Your task to perform on an android device: Open Google Image 0: 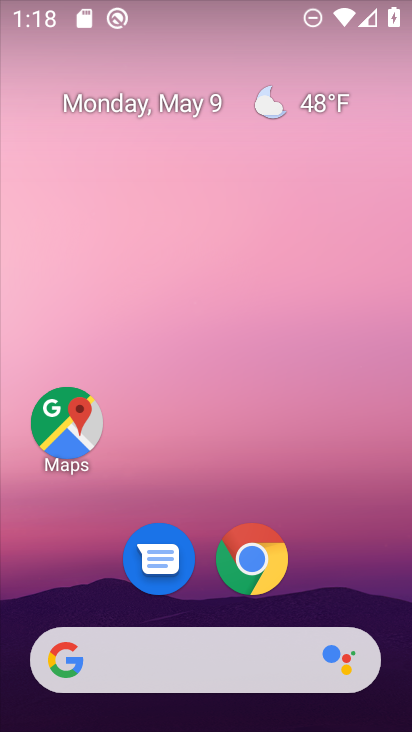
Step 0: drag from (187, 613) to (209, 248)
Your task to perform on an android device: Open Google Image 1: 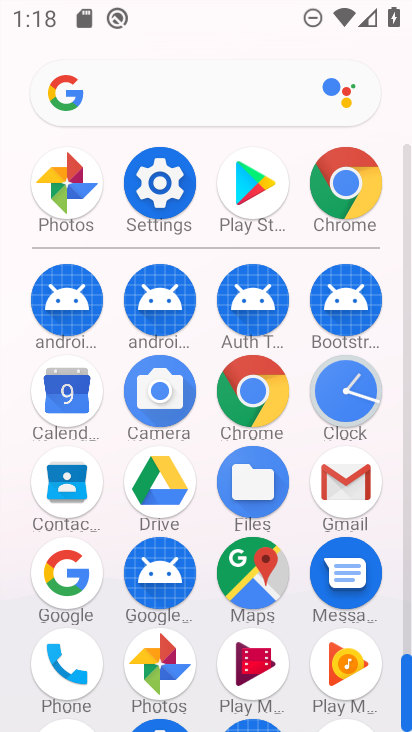
Step 1: drag from (196, 634) to (214, 251)
Your task to perform on an android device: Open Google Image 2: 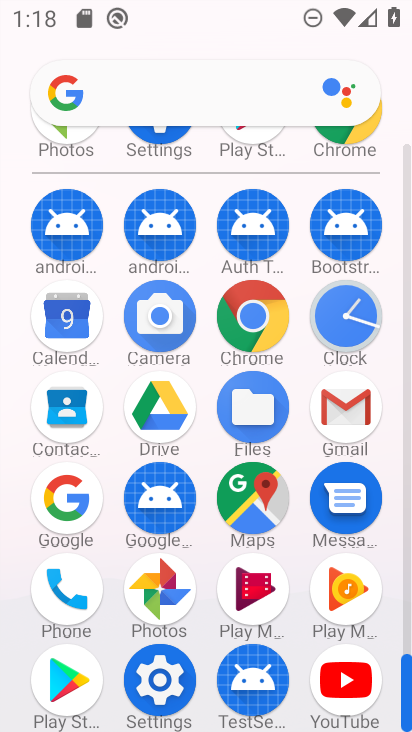
Step 2: click (81, 498)
Your task to perform on an android device: Open Google Image 3: 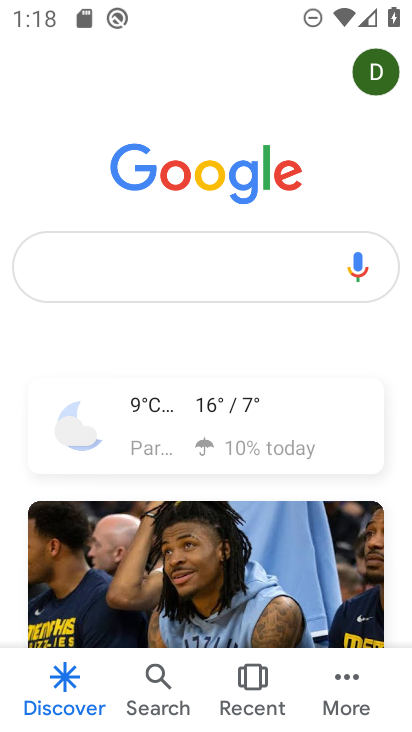
Step 3: task complete